Your task to perform on an android device: Go to Reddit.com Image 0: 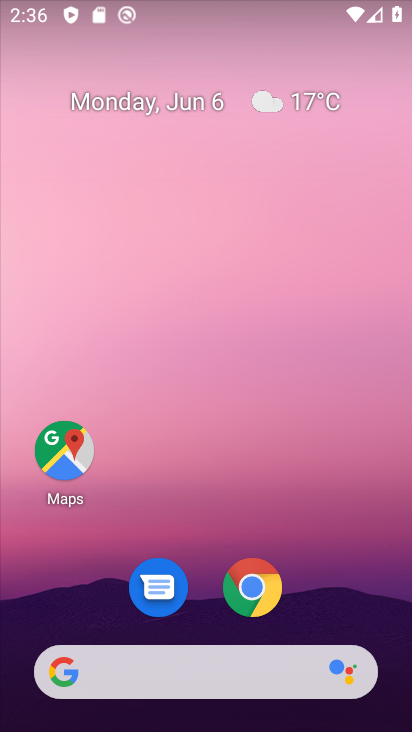
Step 0: drag from (252, 638) to (237, 319)
Your task to perform on an android device: Go to Reddit.com Image 1: 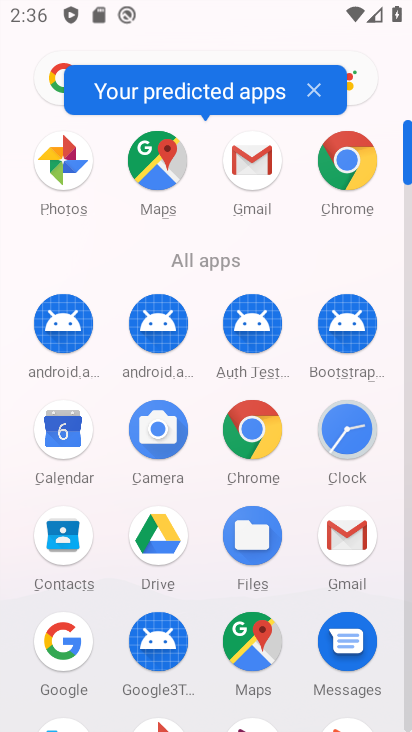
Step 1: click (60, 642)
Your task to perform on an android device: Go to Reddit.com Image 2: 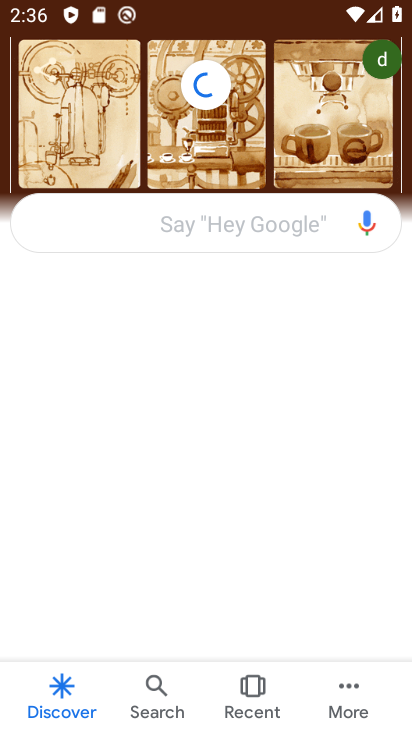
Step 2: click (148, 228)
Your task to perform on an android device: Go to Reddit.com Image 3: 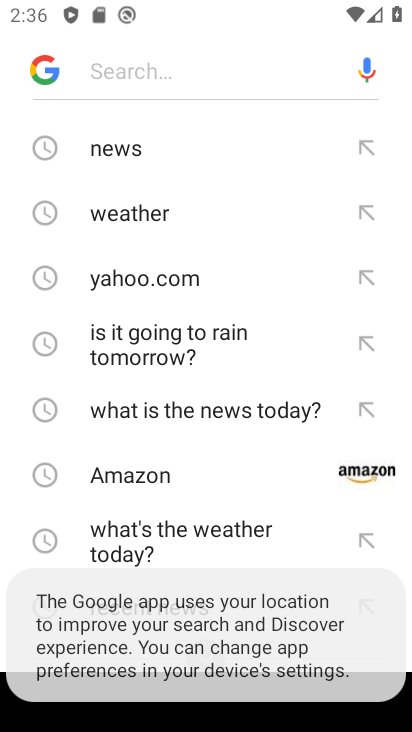
Step 3: drag from (155, 540) to (135, 182)
Your task to perform on an android device: Go to Reddit.com Image 4: 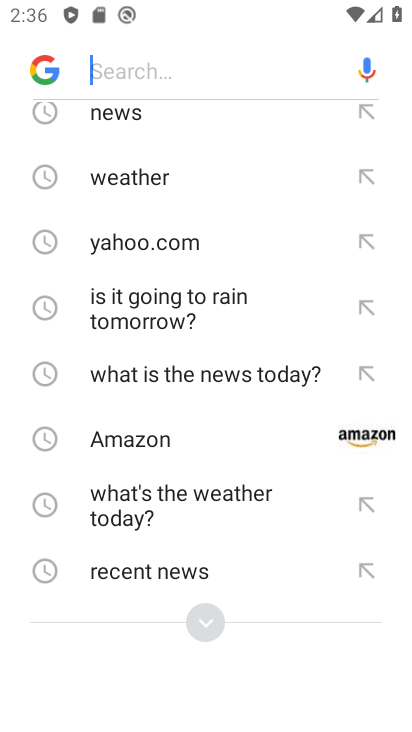
Step 4: click (198, 619)
Your task to perform on an android device: Go to Reddit.com Image 5: 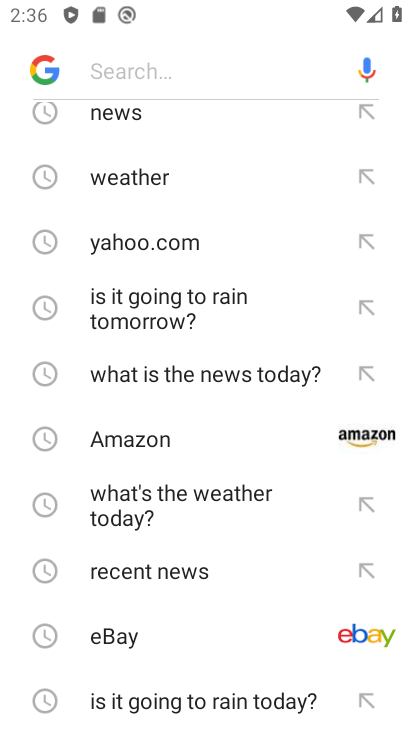
Step 5: drag from (189, 683) to (182, 325)
Your task to perform on an android device: Go to Reddit.com Image 6: 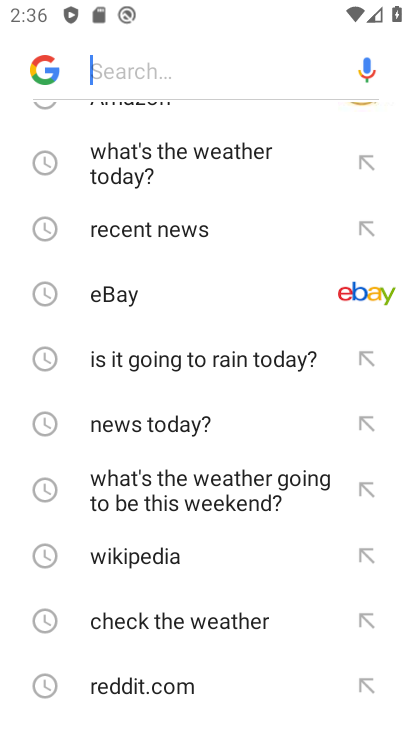
Step 6: click (175, 694)
Your task to perform on an android device: Go to Reddit.com Image 7: 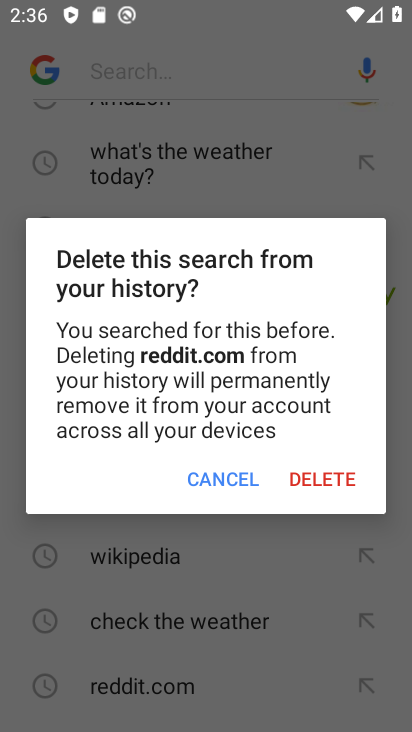
Step 7: click (248, 476)
Your task to perform on an android device: Go to Reddit.com Image 8: 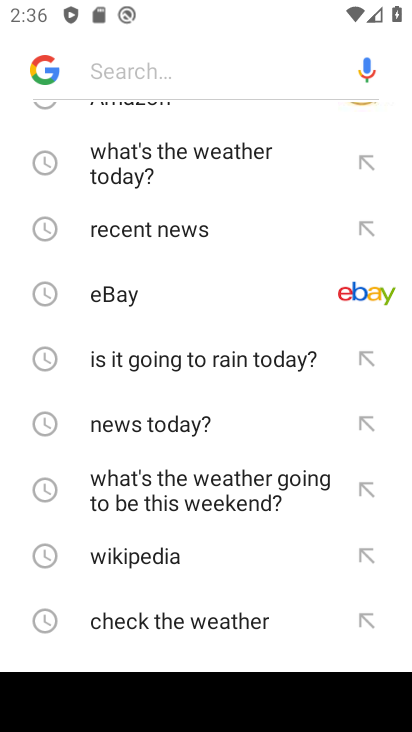
Step 8: drag from (182, 647) to (177, 194)
Your task to perform on an android device: Go to Reddit.com Image 9: 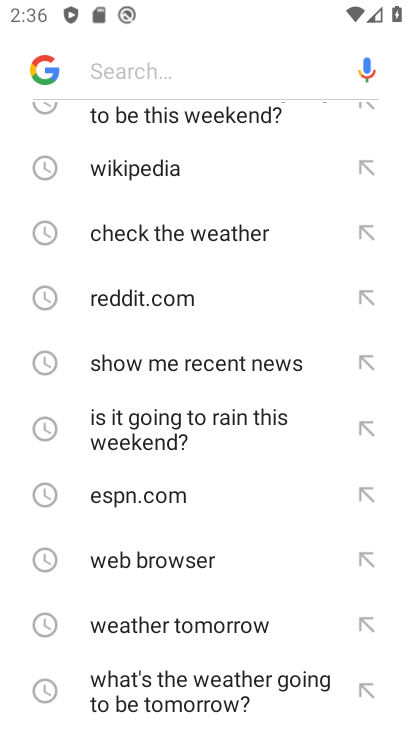
Step 9: click (142, 290)
Your task to perform on an android device: Go to Reddit.com Image 10: 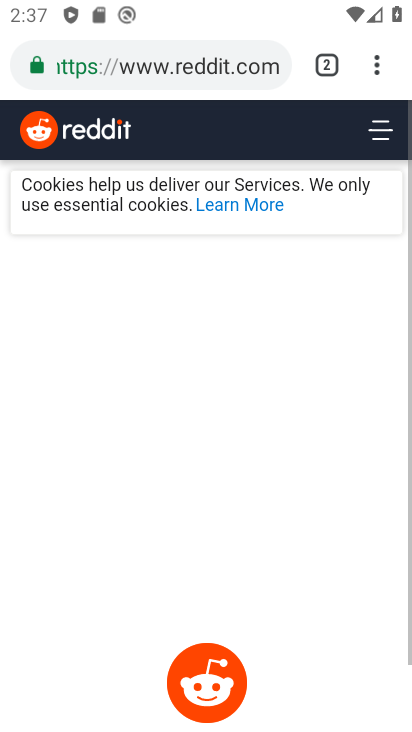
Step 10: task complete